Your task to perform on an android device: Play the last video I watched on Youtube Image 0: 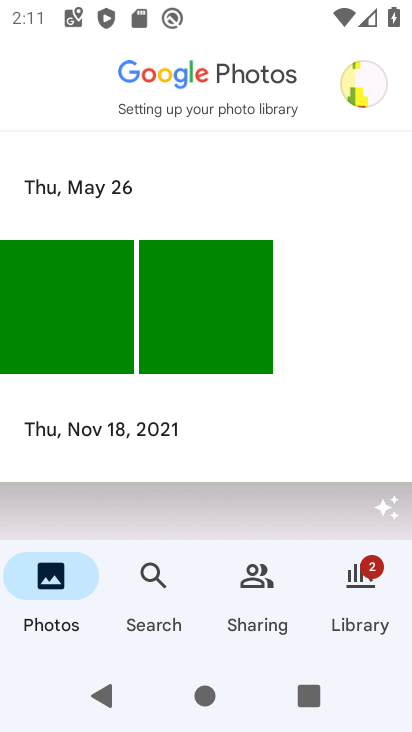
Step 0: press home button
Your task to perform on an android device: Play the last video I watched on Youtube Image 1: 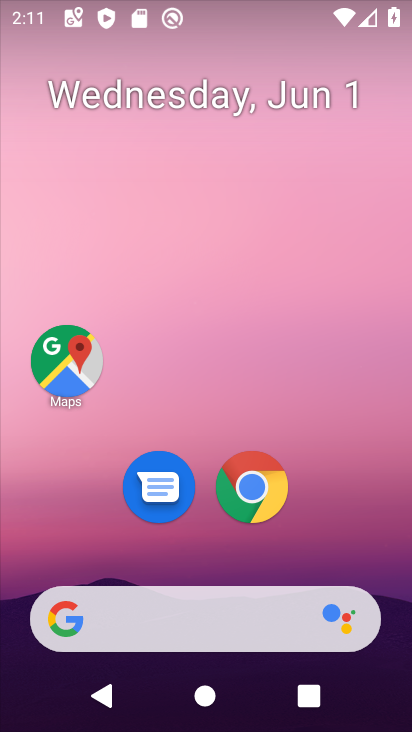
Step 1: drag from (378, 528) to (377, 163)
Your task to perform on an android device: Play the last video I watched on Youtube Image 2: 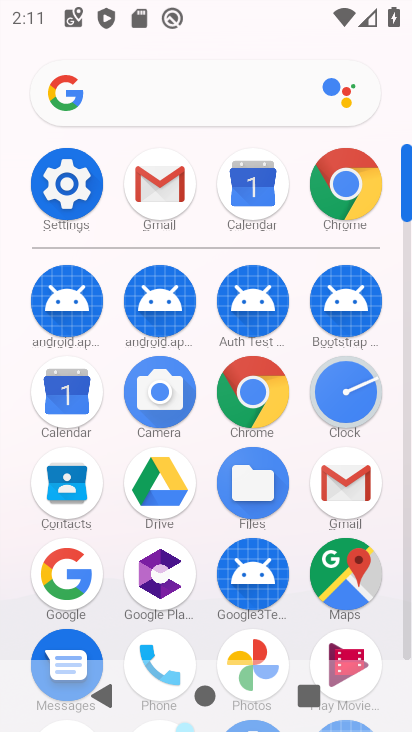
Step 2: drag from (375, 527) to (387, 285)
Your task to perform on an android device: Play the last video I watched on Youtube Image 3: 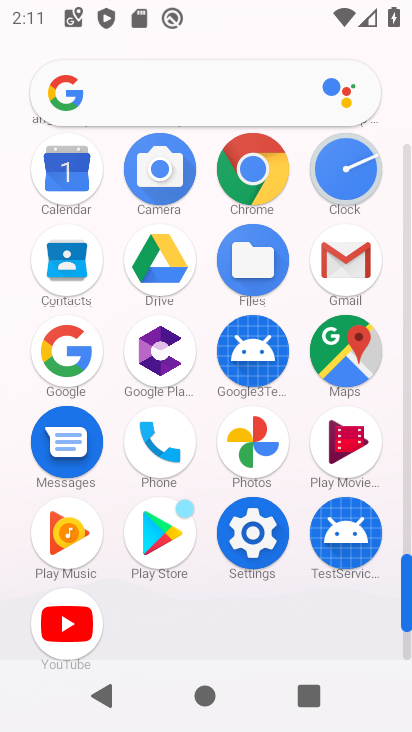
Step 3: click (58, 633)
Your task to perform on an android device: Play the last video I watched on Youtube Image 4: 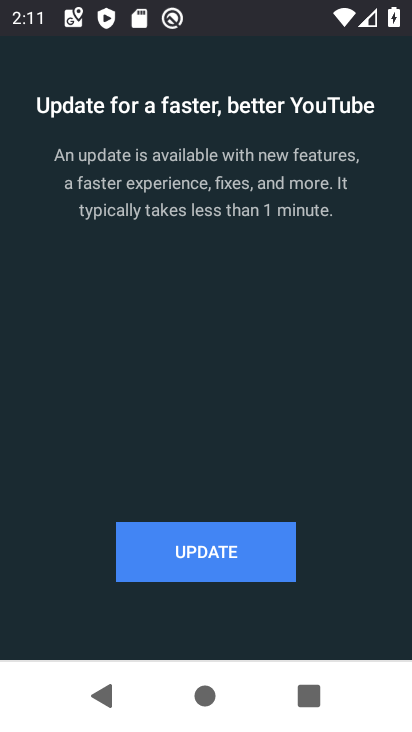
Step 4: click (219, 564)
Your task to perform on an android device: Play the last video I watched on Youtube Image 5: 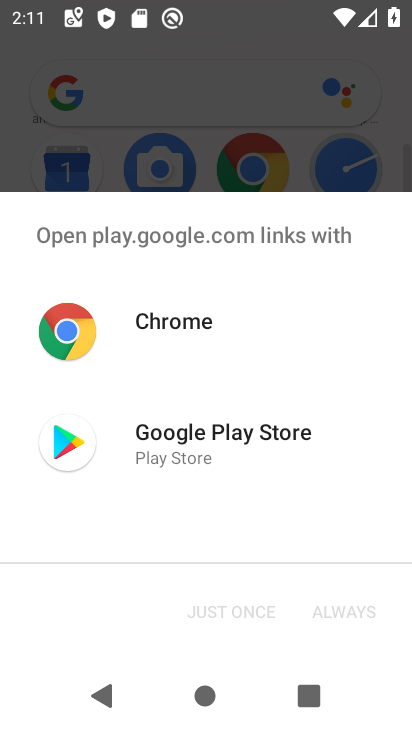
Step 5: click (193, 454)
Your task to perform on an android device: Play the last video I watched on Youtube Image 6: 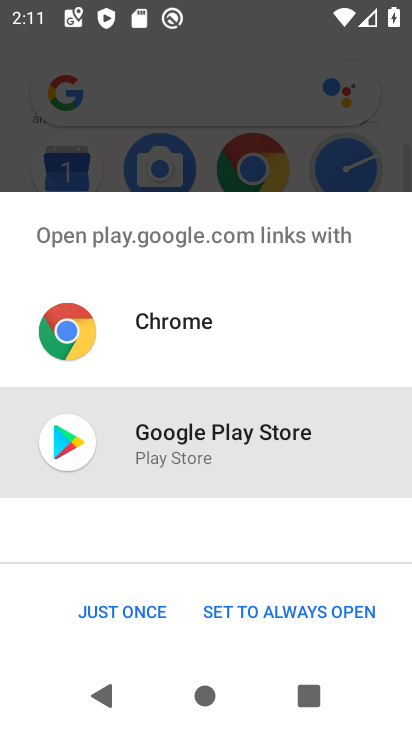
Step 6: click (157, 614)
Your task to perform on an android device: Play the last video I watched on Youtube Image 7: 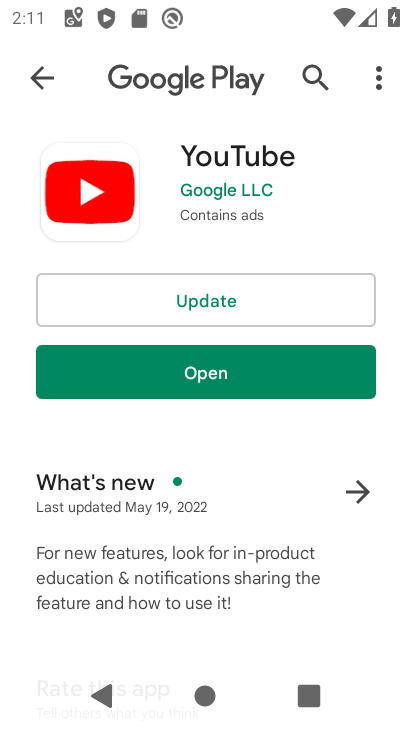
Step 7: click (242, 305)
Your task to perform on an android device: Play the last video I watched on Youtube Image 8: 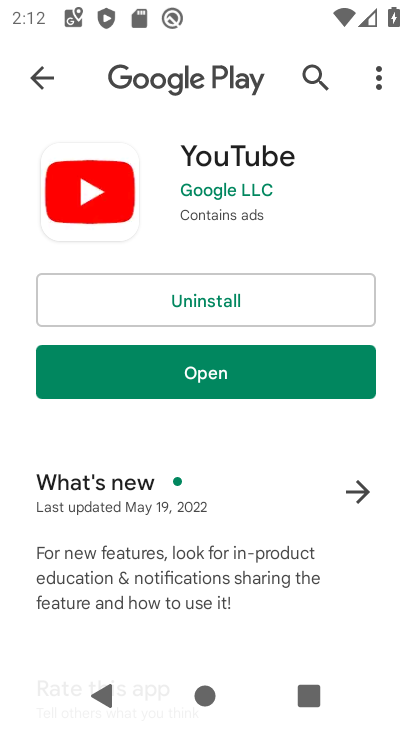
Step 8: click (345, 377)
Your task to perform on an android device: Play the last video I watched on Youtube Image 9: 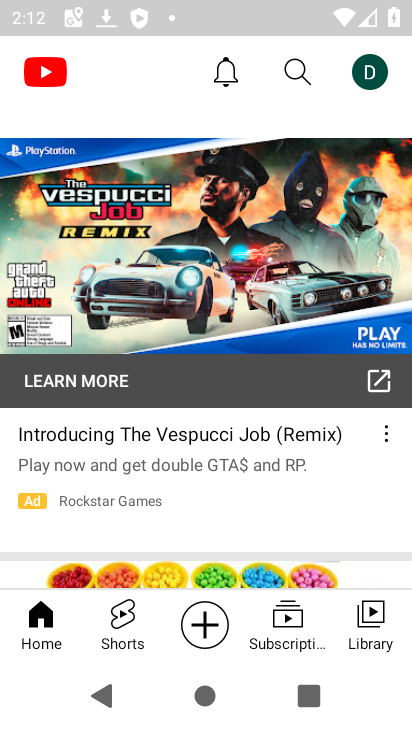
Step 9: click (369, 617)
Your task to perform on an android device: Play the last video I watched on Youtube Image 10: 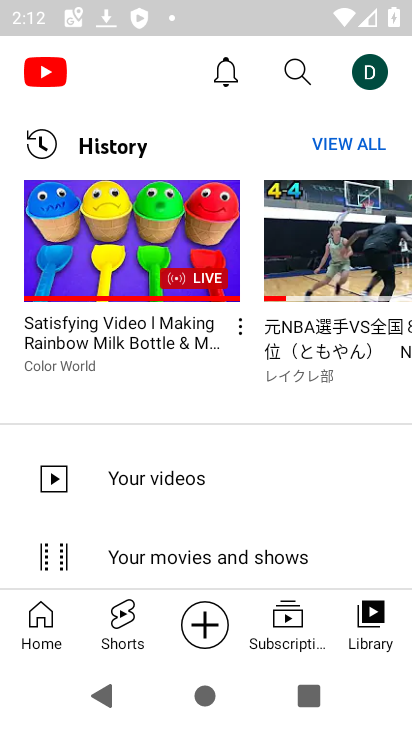
Step 10: click (114, 246)
Your task to perform on an android device: Play the last video I watched on Youtube Image 11: 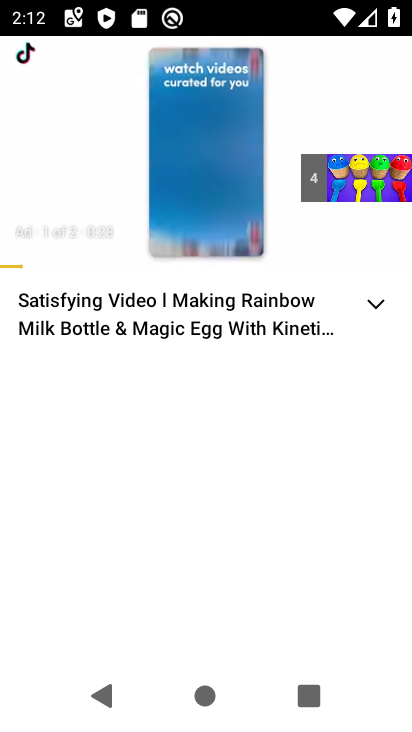
Step 11: task complete